Your task to perform on an android device: make emails show in primary in the gmail app Image 0: 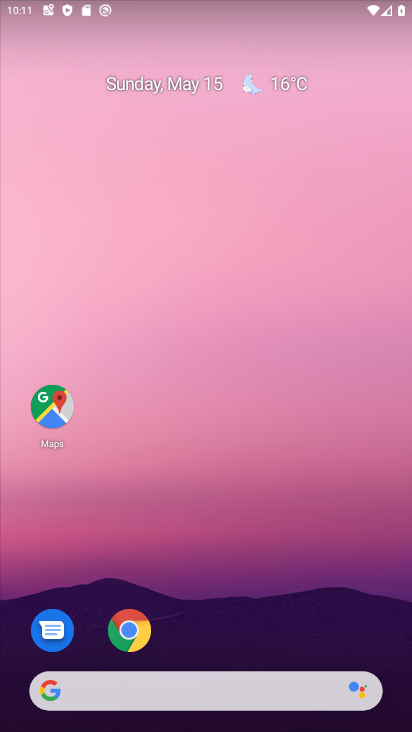
Step 0: drag from (216, 635) to (229, 280)
Your task to perform on an android device: make emails show in primary in the gmail app Image 1: 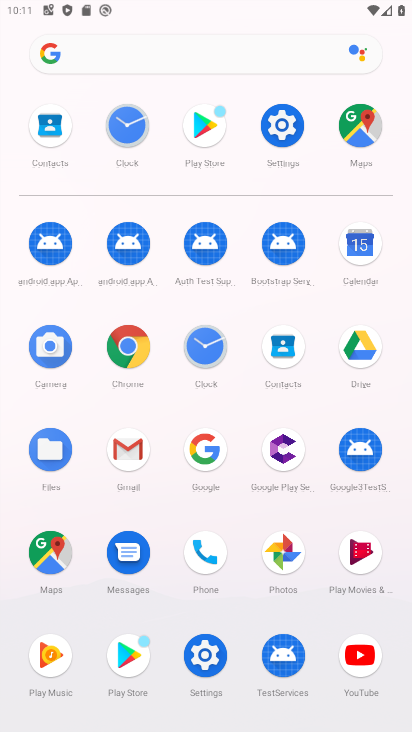
Step 1: click (122, 446)
Your task to perform on an android device: make emails show in primary in the gmail app Image 2: 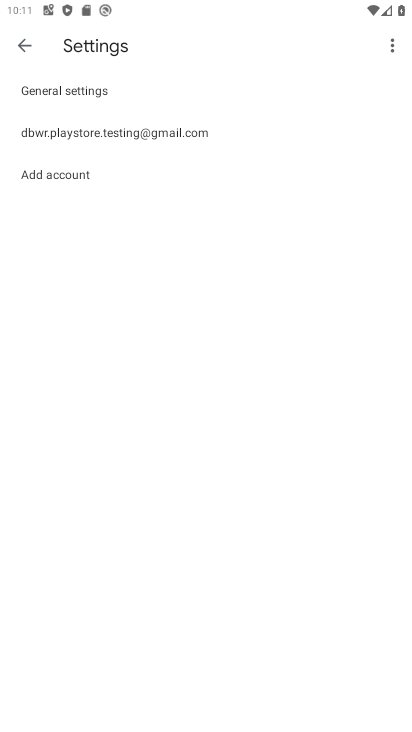
Step 2: click (75, 128)
Your task to perform on an android device: make emails show in primary in the gmail app Image 3: 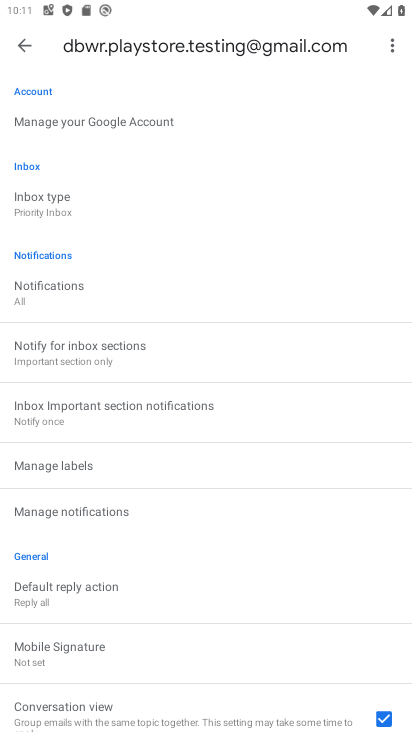
Step 3: drag from (113, 244) to (122, 349)
Your task to perform on an android device: make emails show in primary in the gmail app Image 4: 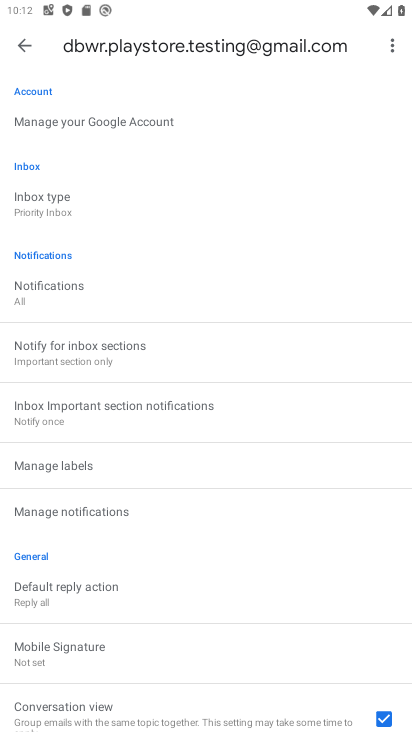
Step 4: click (89, 199)
Your task to perform on an android device: make emails show in primary in the gmail app Image 5: 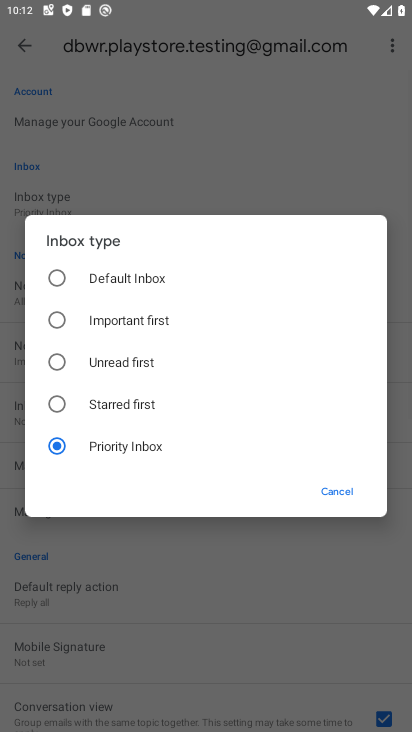
Step 5: click (98, 269)
Your task to perform on an android device: make emails show in primary in the gmail app Image 6: 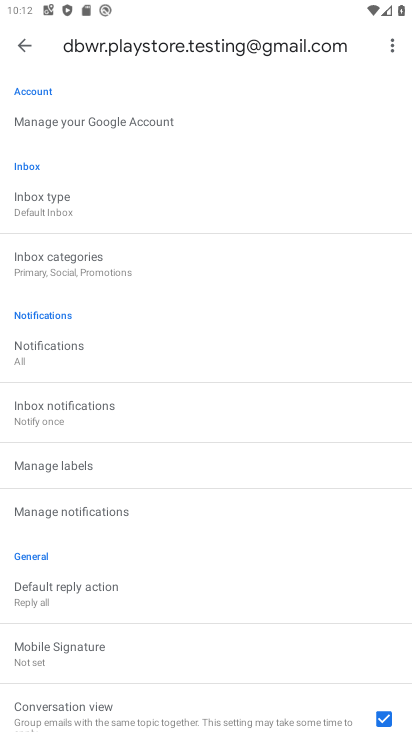
Step 6: task complete